Your task to perform on an android device: change notification settings in the gmail app Image 0: 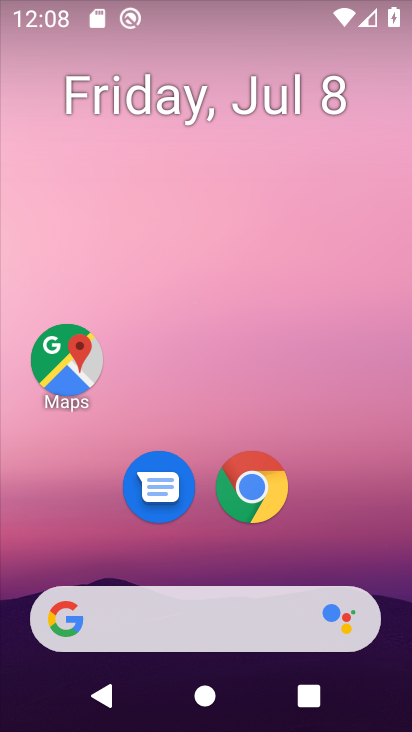
Step 0: drag from (383, 560) to (389, 157)
Your task to perform on an android device: change notification settings in the gmail app Image 1: 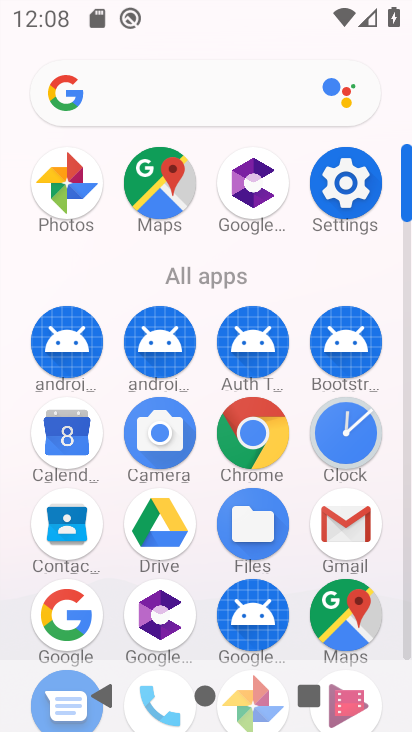
Step 1: click (354, 521)
Your task to perform on an android device: change notification settings in the gmail app Image 2: 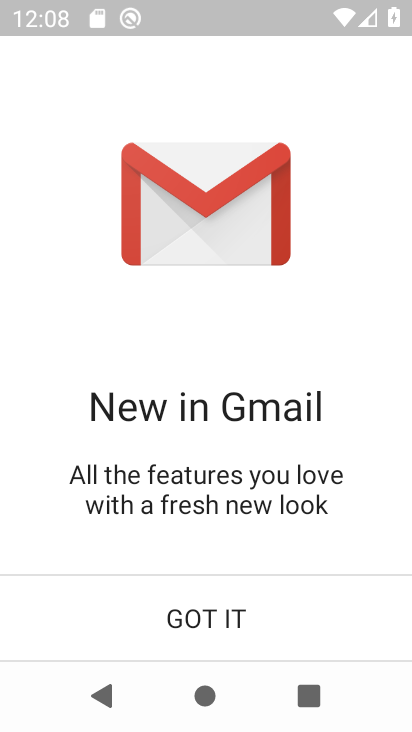
Step 2: click (229, 622)
Your task to perform on an android device: change notification settings in the gmail app Image 3: 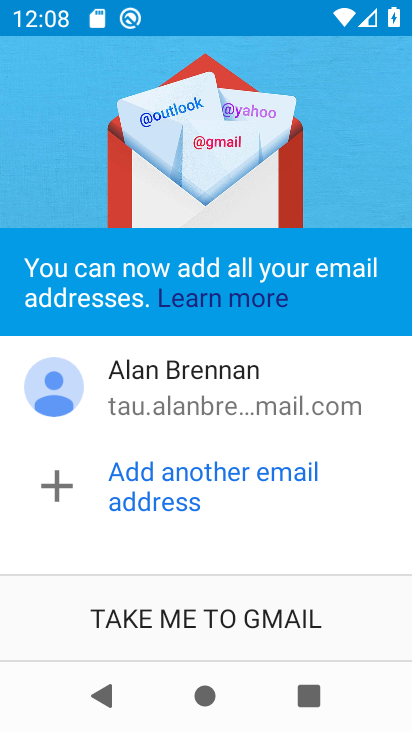
Step 3: click (229, 622)
Your task to perform on an android device: change notification settings in the gmail app Image 4: 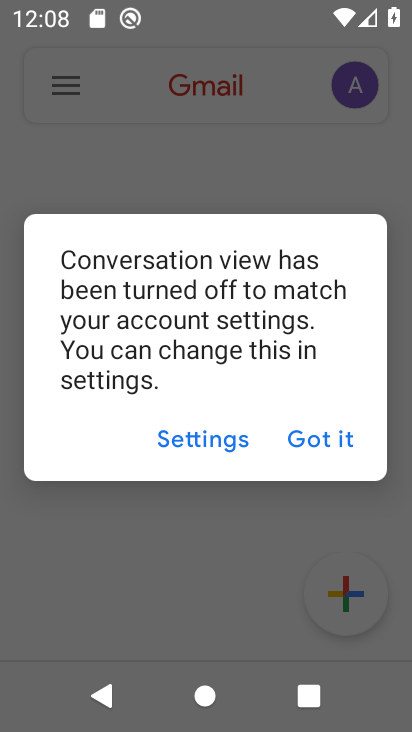
Step 4: click (323, 449)
Your task to perform on an android device: change notification settings in the gmail app Image 5: 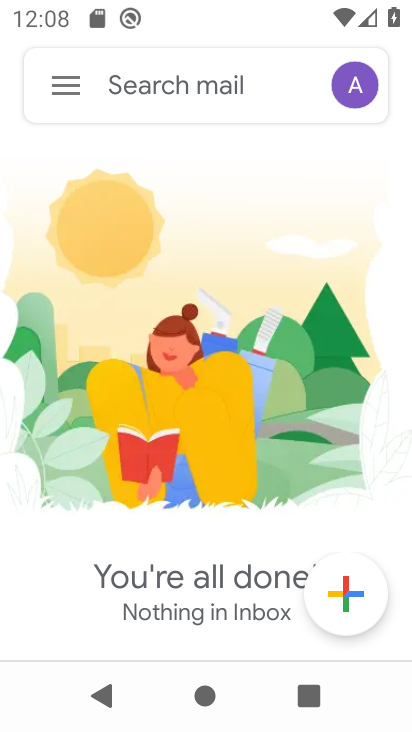
Step 5: click (77, 85)
Your task to perform on an android device: change notification settings in the gmail app Image 6: 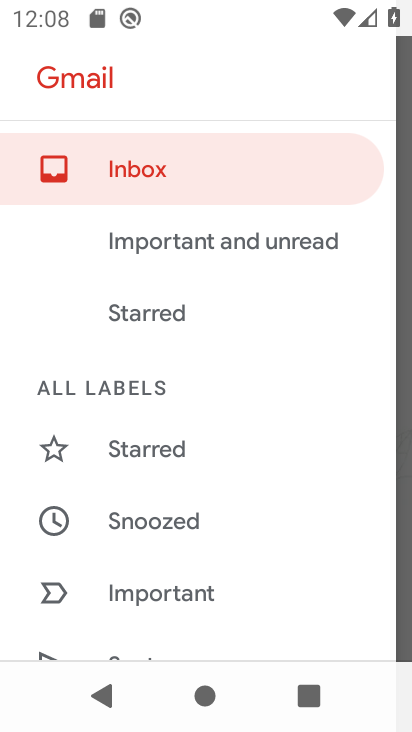
Step 6: drag from (255, 412) to (276, 302)
Your task to perform on an android device: change notification settings in the gmail app Image 7: 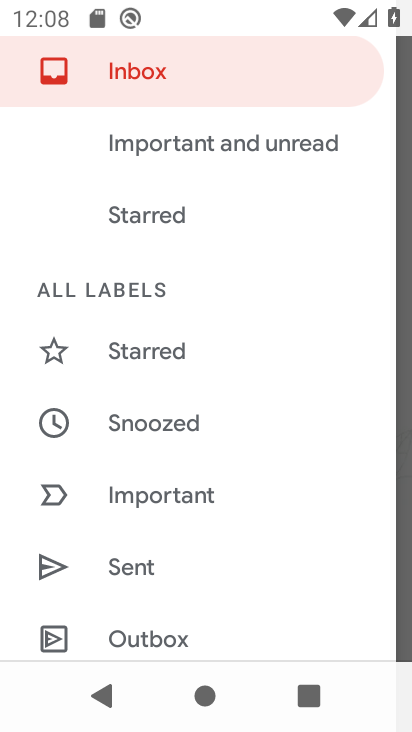
Step 7: drag from (300, 419) to (307, 322)
Your task to perform on an android device: change notification settings in the gmail app Image 8: 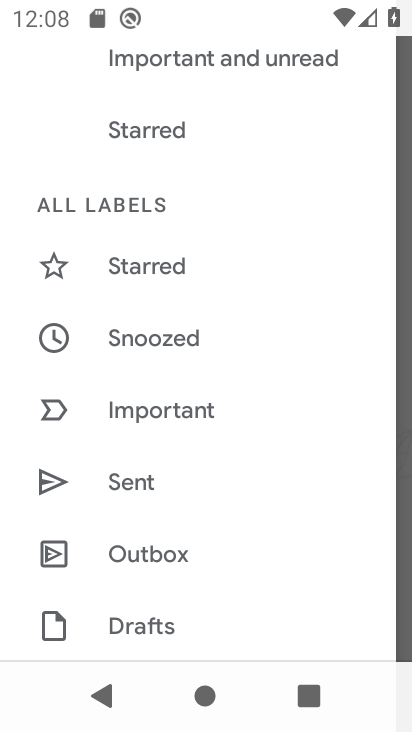
Step 8: drag from (304, 450) to (316, 359)
Your task to perform on an android device: change notification settings in the gmail app Image 9: 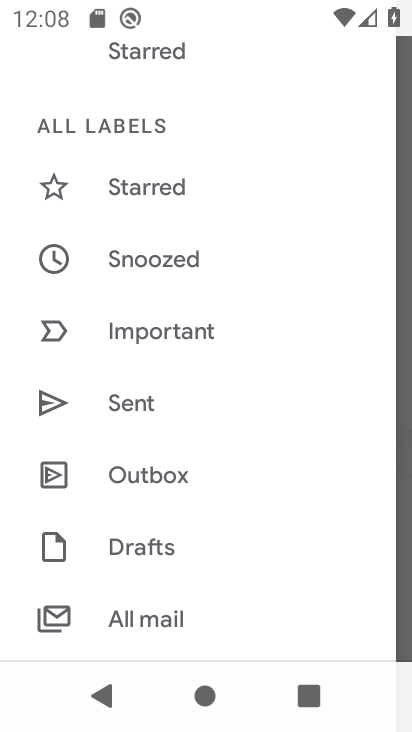
Step 9: drag from (303, 482) to (291, 383)
Your task to perform on an android device: change notification settings in the gmail app Image 10: 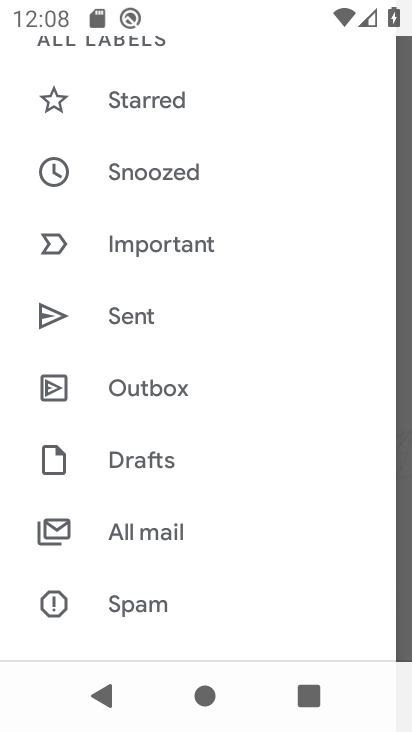
Step 10: drag from (290, 479) to (298, 379)
Your task to perform on an android device: change notification settings in the gmail app Image 11: 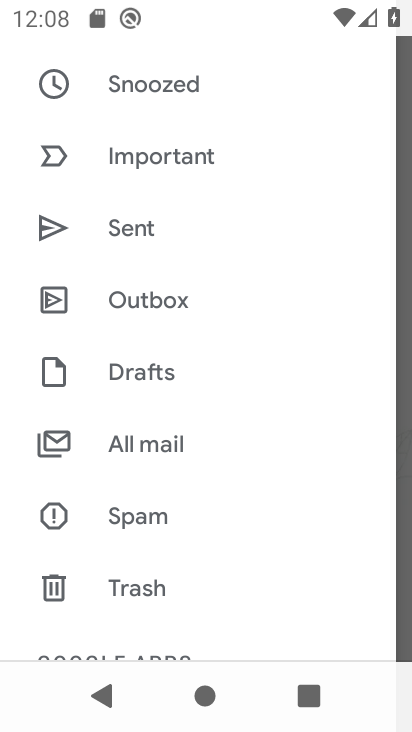
Step 11: drag from (291, 479) to (305, 395)
Your task to perform on an android device: change notification settings in the gmail app Image 12: 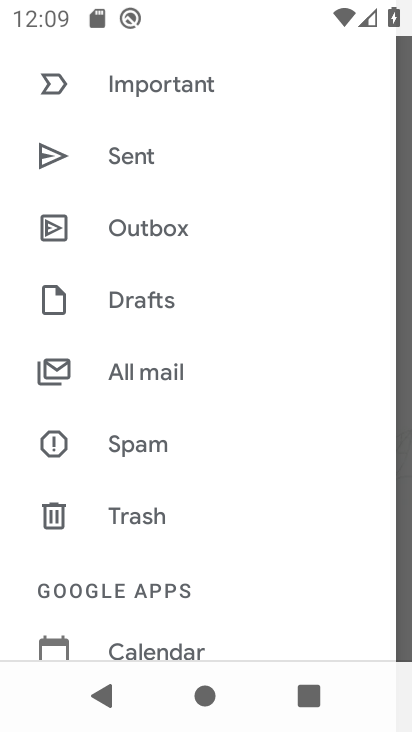
Step 12: drag from (307, 492) to (298, 336)
Your task to perform on an android device: change notification settings in the gmail app Image 13: 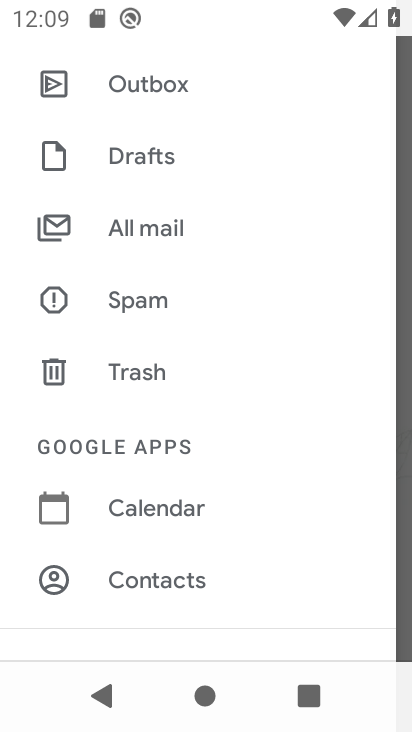
Step 13: drag from (288, 525) to (292, 402)
Your task to perform on an android device: change notification settings in the gmail app Image 14: 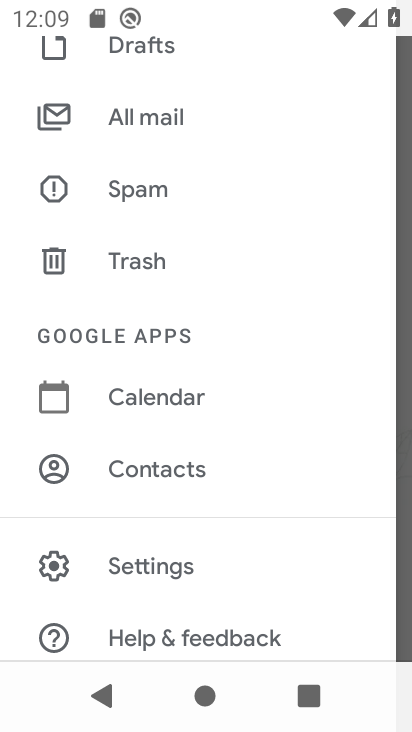
Step 14: click (278, 558)
Your task to perform on an android device: change notification settings in the gmail app Image 15: 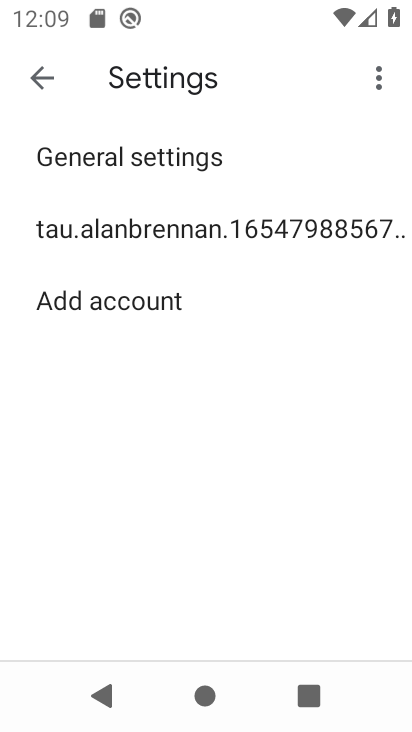
Step 15: click (293, 234)
Your task to perform on an android device: change notification settings in the gmail app Image 16: 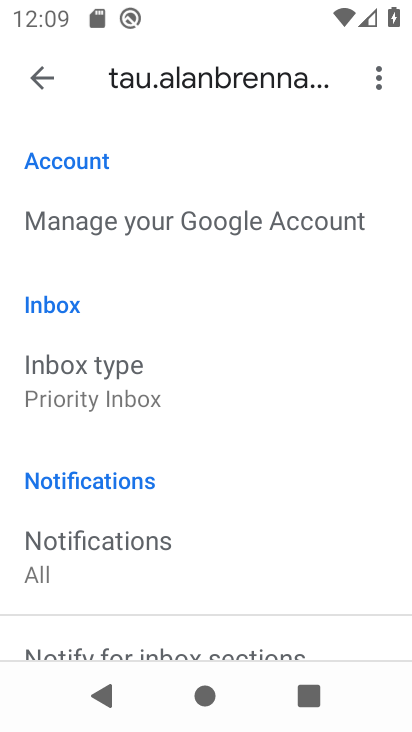
Step 16: drag from (318, 422) to (337, 324)
Your task to perform on an android device: change notification settings in the gmail app Image 17: 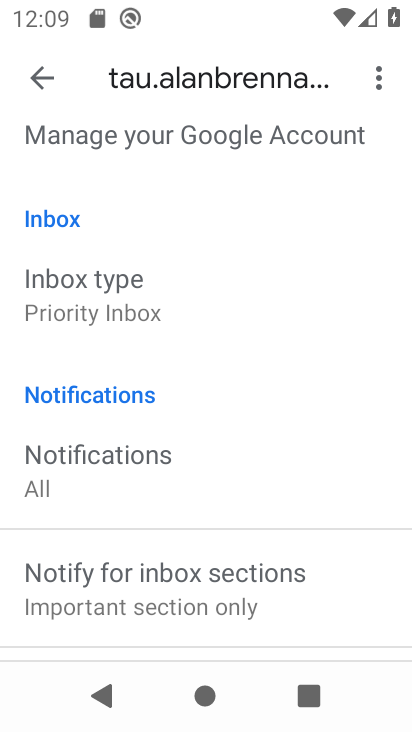
Step 17: click (272, 477)
Your task to perform on an android device: change notification settings in the gmail app Image 18: 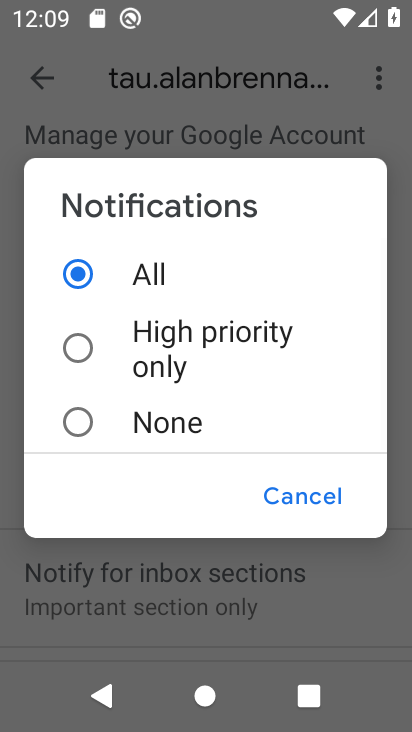
Step 18: click (173, 366)
Your task to perform on an android device: change notification settings in the gmail app Image 19: 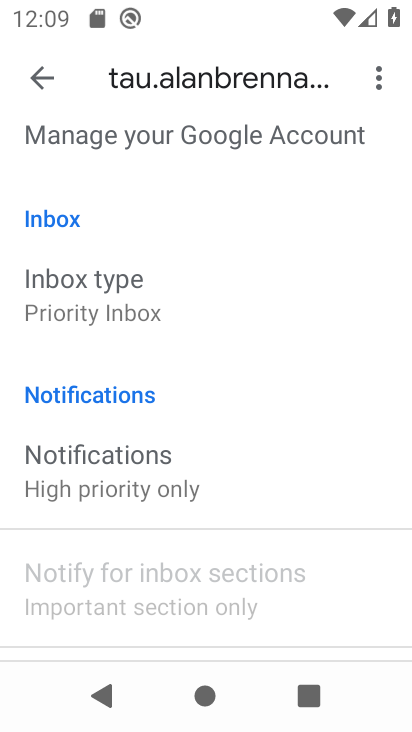
Step 19: task complete